Your task to perform on an android device: Go to location settings Image 0: 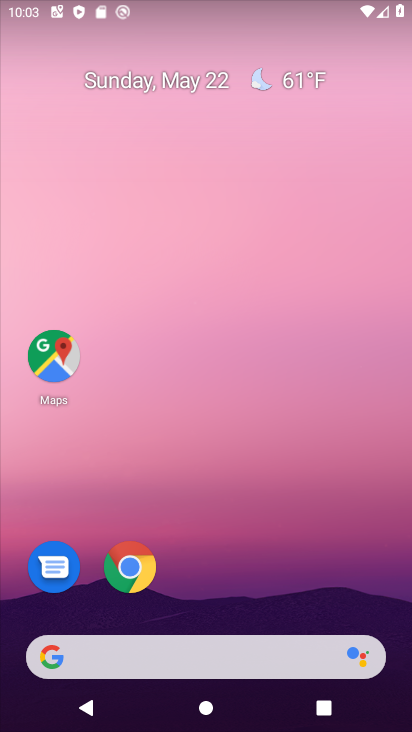
Step 0: drag from (217, 631) to (228, 3)
Your task to perform on an android device: Go to location settings Image 1: 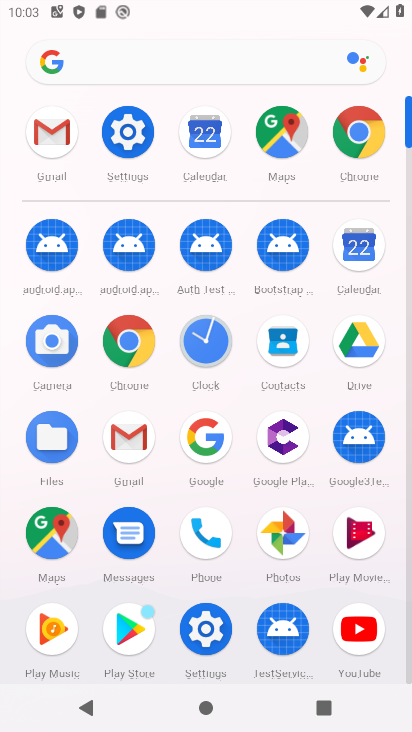
Step 1: click (119, 148)
Your task to perform on an android device: Go to location settings Image 2: 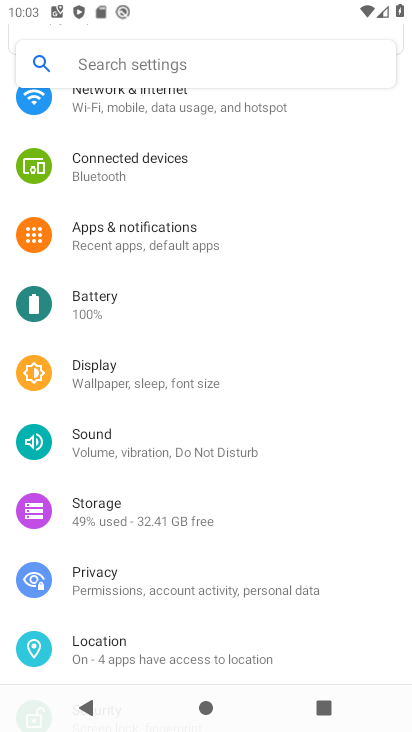
Step 2: click (117, 636)
Your task to perform on an android device: Go to location settings Image 3: 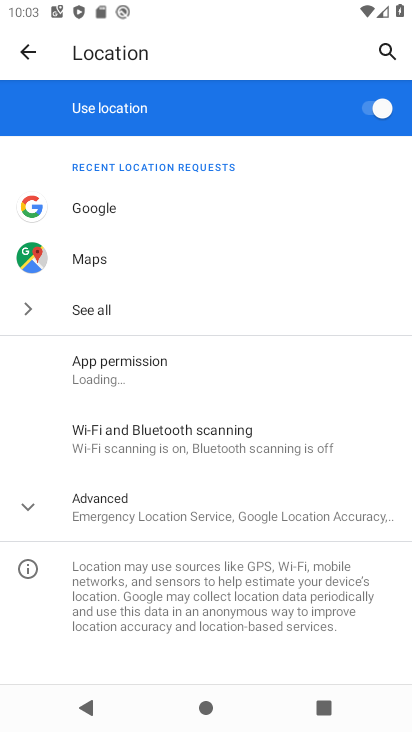
Step 3: click (117, 629)
Your task to perform on an android device: Go to location settings Image 4: 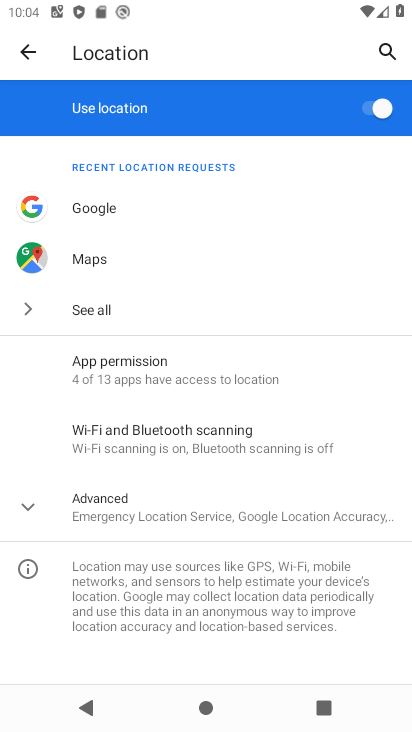
Step 4: click (130, 492)
Your task to perform on an android device: Go to location settings Image 5: 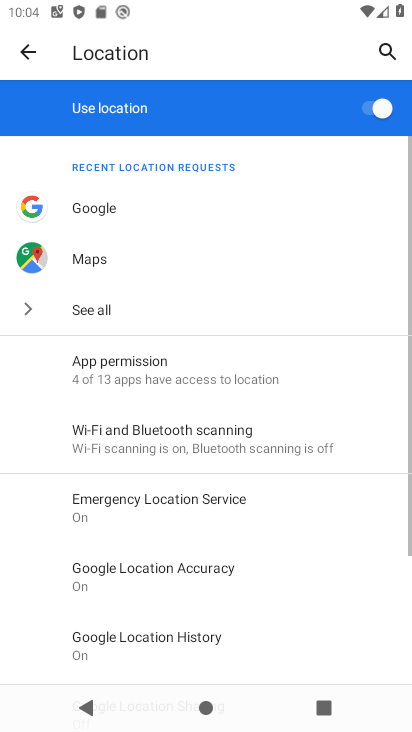
Step 5: task complete